Your task to perform on an android device: Go to Google maps Image 0: 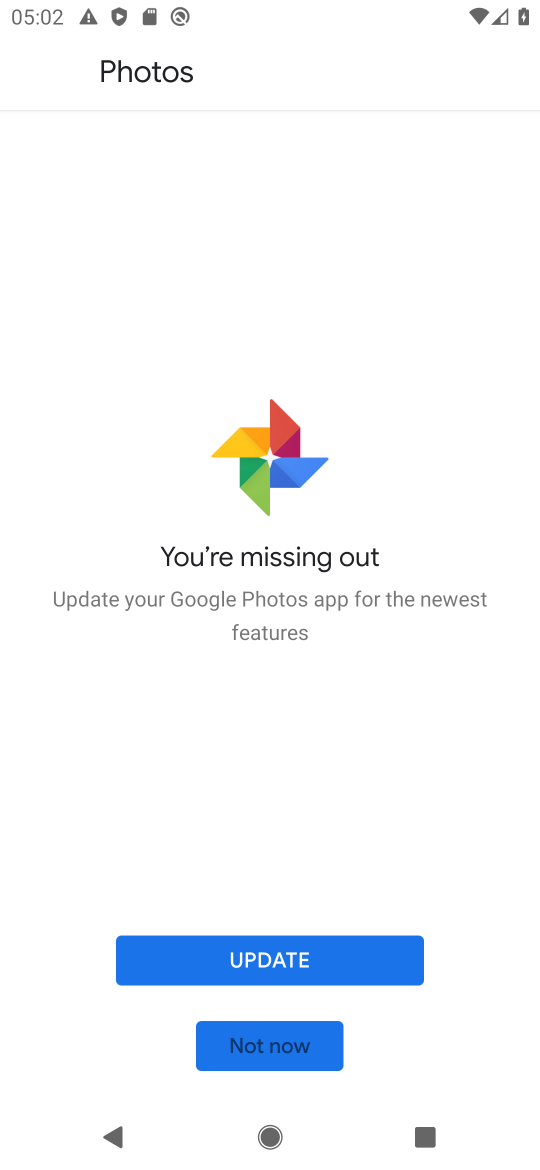
Step 0: press home button
Your task to perform on an android device: Go to Google maps Image 1: 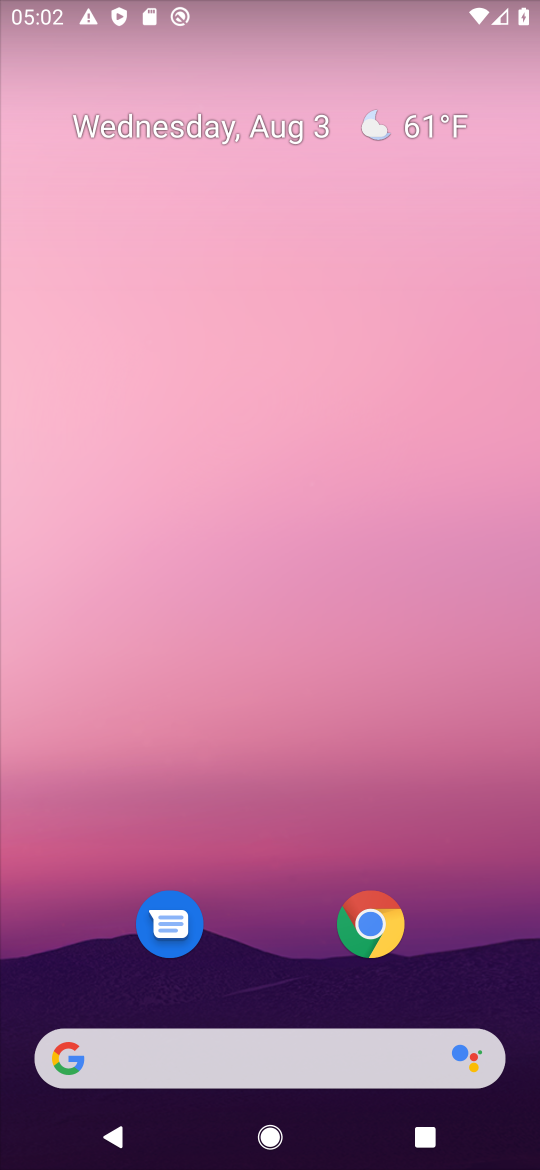
Step 1: drag from (285, 954) to (225, 270)
Your task to perform on an android device: Go to Google maps Image 2: 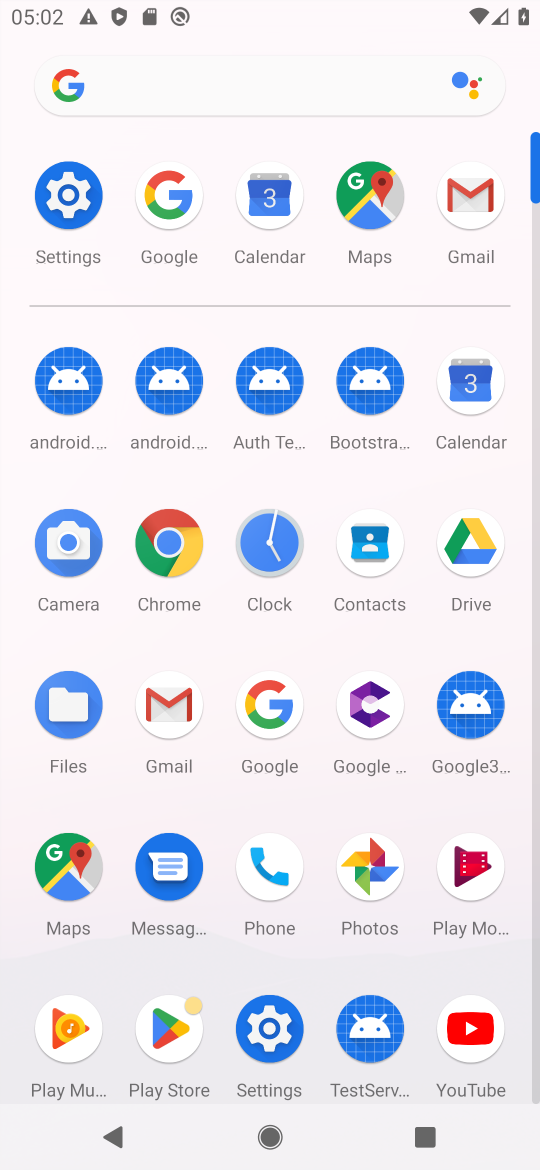
Step 2: click (355, 214)
Your task to perform on an android device: Go to Google maps Image 3: 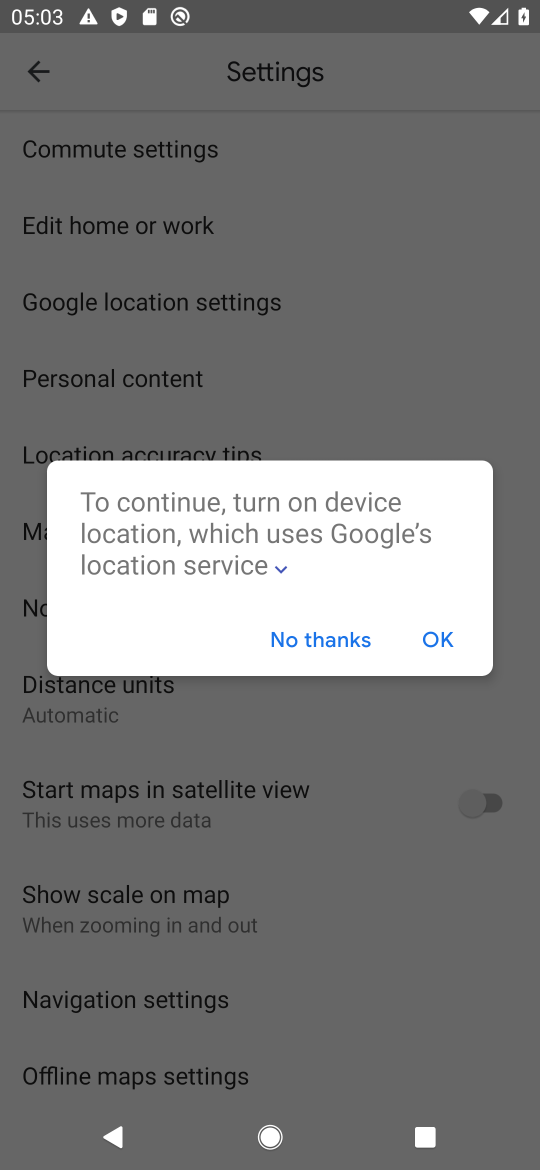
Step 3: click (440, 637)
Your task to perform on an android device: Go to Google maps Image 4: 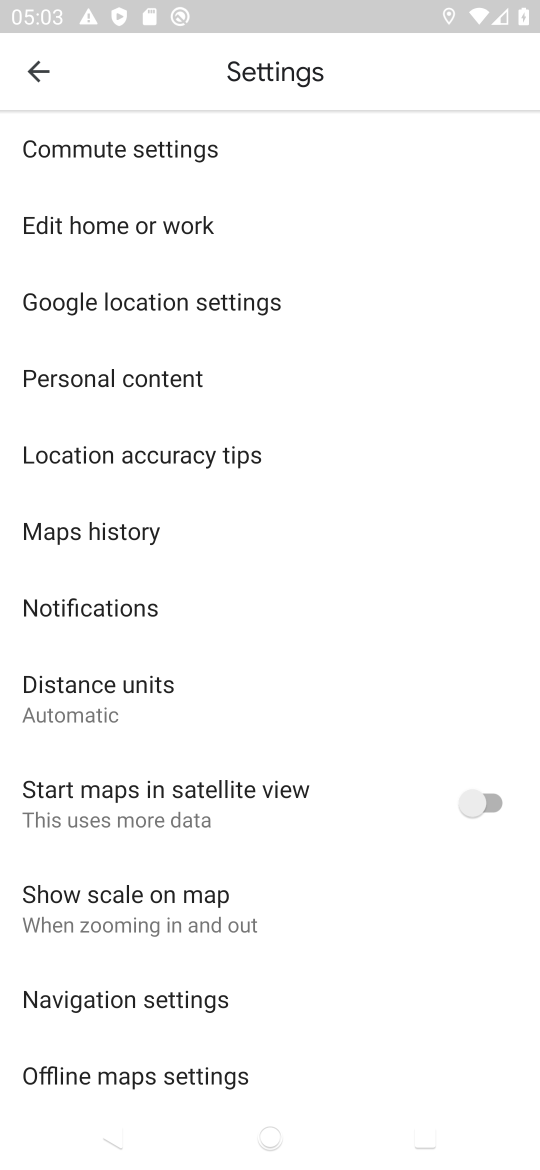
Step 4: click (18, 71)
Your task to perform on an android device: Go to Google maps Image 5: 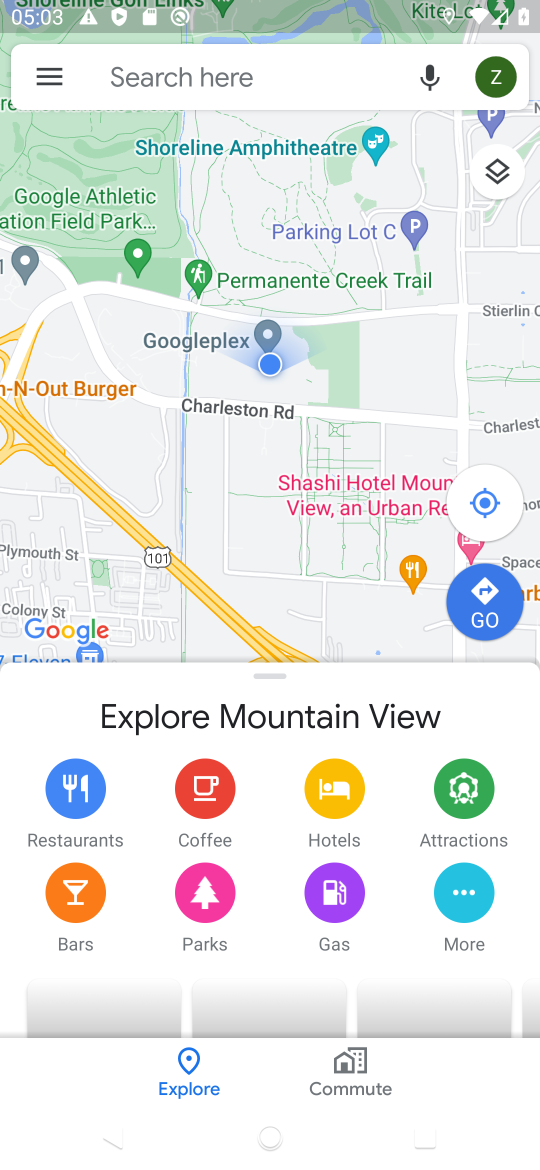
Step 5: task complete